Your task to perform on an android device: Open sound settings Image 0: 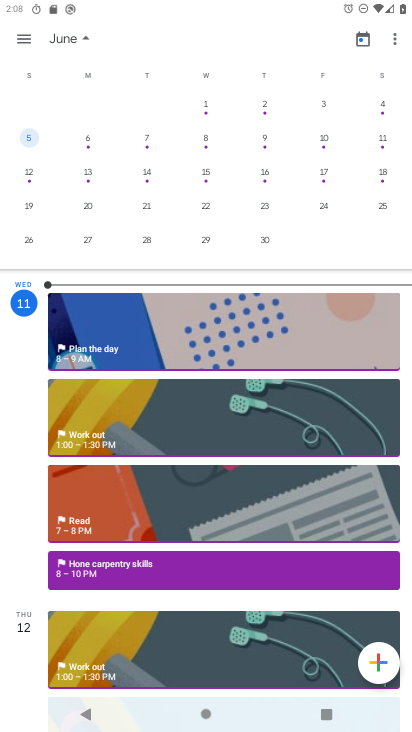
Step 0: press home button
Your task to perform on an android device: Open sound settings Image 1: 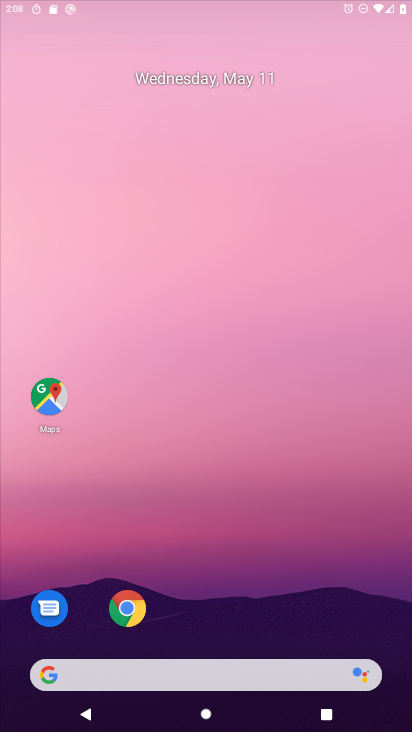
Step 1: drag from (219, 632) to (175, 157)
Your task to perform on an android device: Open sound settings Image 2: 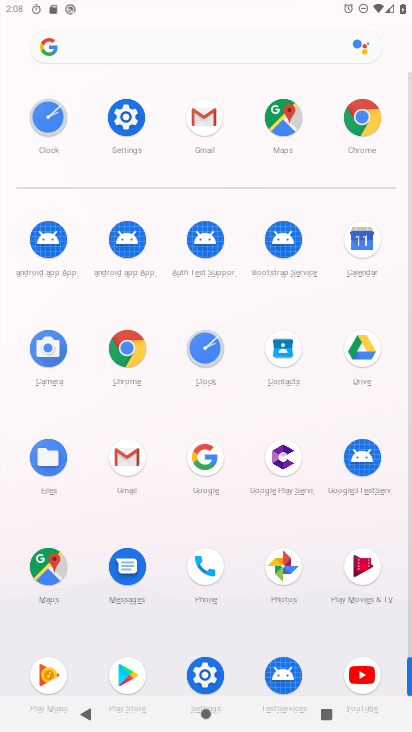
Step 2: click (209, 674)
Your task to perform on an android device: Open sound settings Image 3: 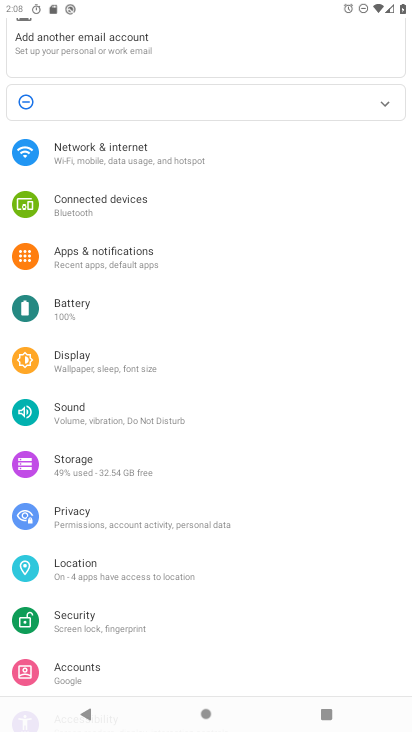
Step 3: click (146, 420)
Your task to perform on an android device: Open sound settings Image 4: 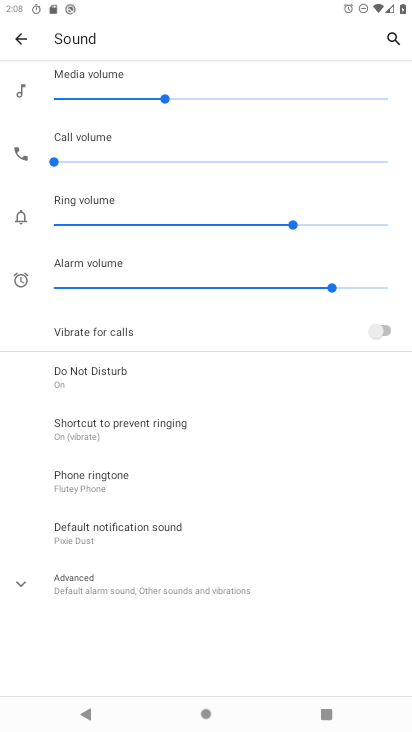
Step 4: task complete